Your task to perform on an android device: delete a single message in the gmail app Image 0: 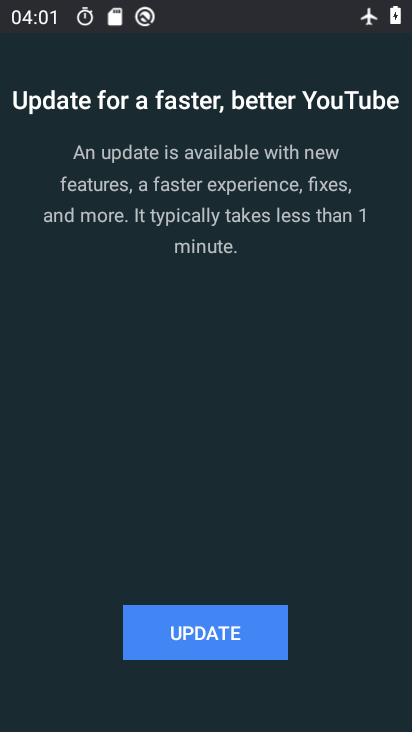
Step 0: press home button
Your task to perform on an android device: delete a single message in the gmail app Image 1: 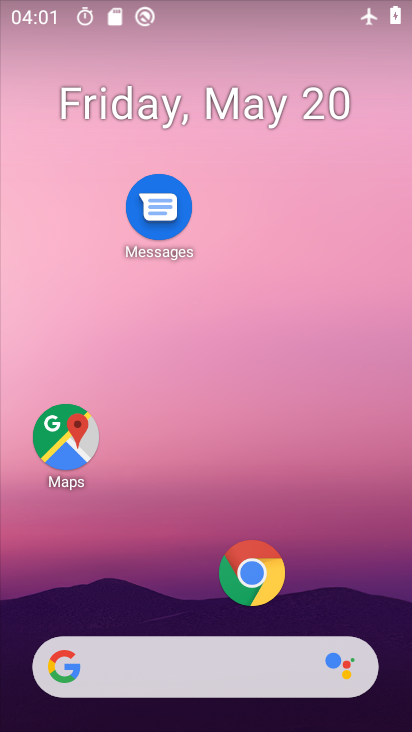
Step 1: drag from (151, 594) to (218, 59)
Your task to perform on an android device: delete a single message in the gmail app Image 2: 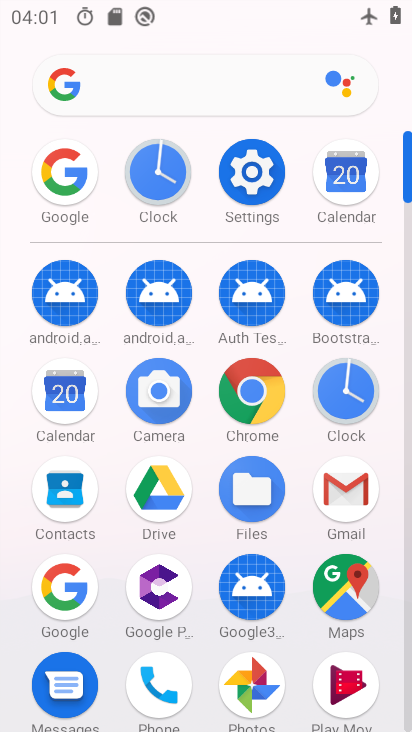
Step 2: click (318, 475)
Your task to perform on an android device: delete a single message in the gmail app Image 3: 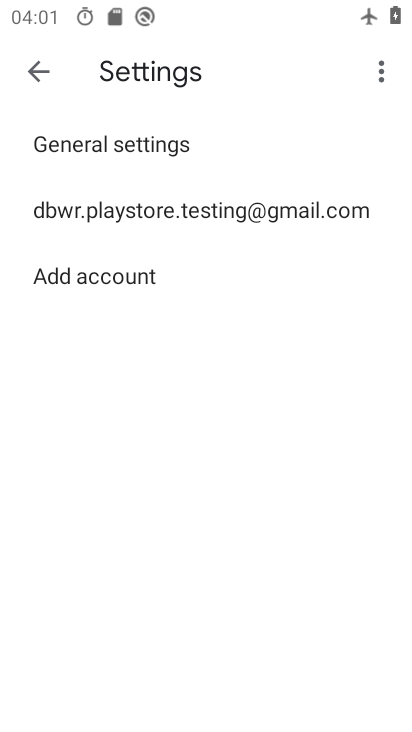
Step 3: click (45, 58)
Your task to perform on an android device: delete a single message in the gmail app Image 4: 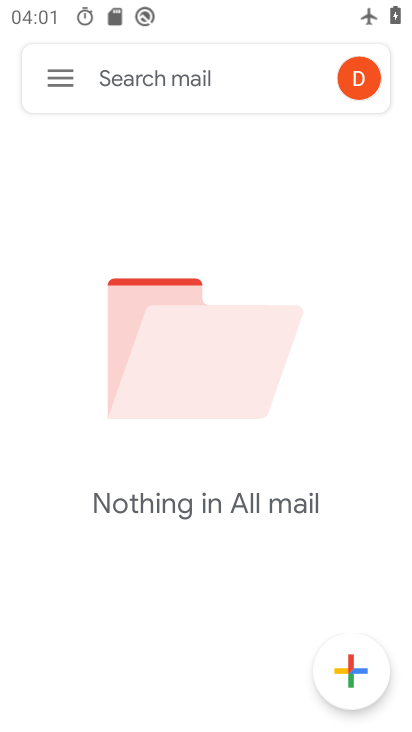
Step 4: click (54, 72)
Your task to perform on an android device: delete a single message in the gmail app Image 5: 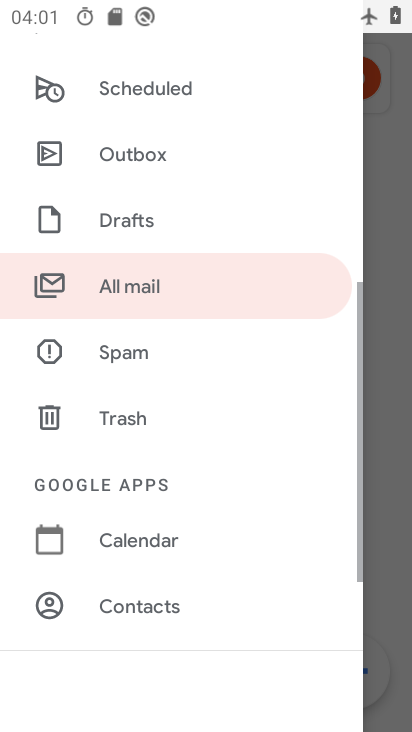
Step 5: click (141, 275)
Your task to perform on an android device: delete a single message in the gmail app Image 6: 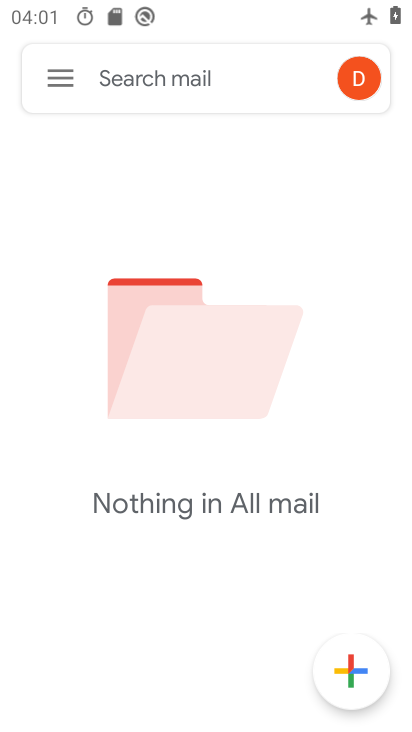
Step 6: task complete